Your task to perform on an android device: turn off data saver in the chrome app Image 0: 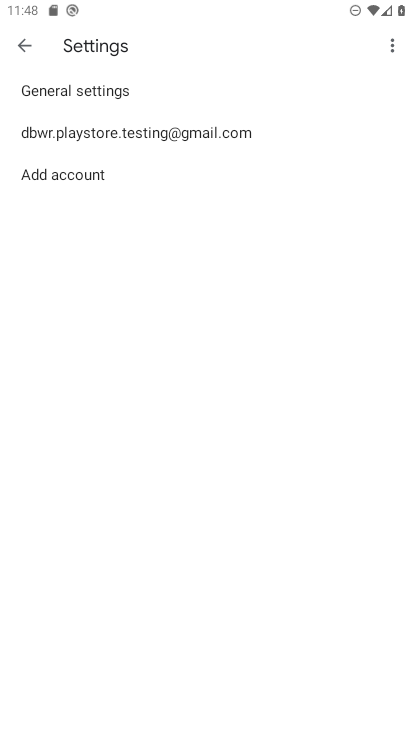
Step 0: press home button
Your task to perform on an android device: turn off data saver in the chrome app Image 1: 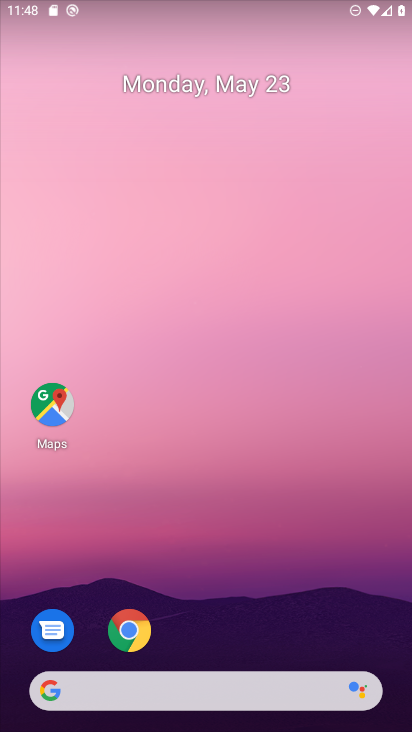
Step 1: click (132, 633)
Your task to perform on an android device: turn off data saver in the chrome app Image 2: 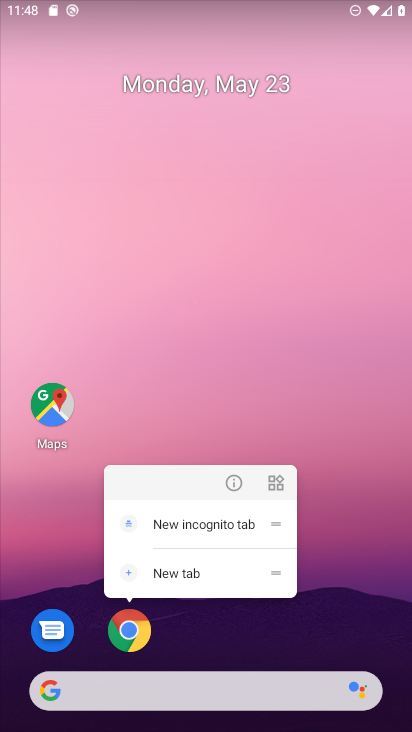
Step 2: click (233, 493)
Your task to perform on an android device: turn off data saver in the chrome app Image 3: 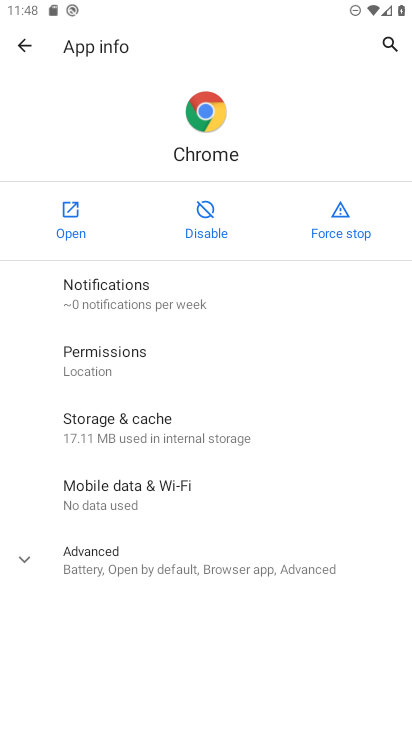
Step 3: click (62, 243)
Your task to perform on an android device: turn off data saver in the chrome app Image 4: 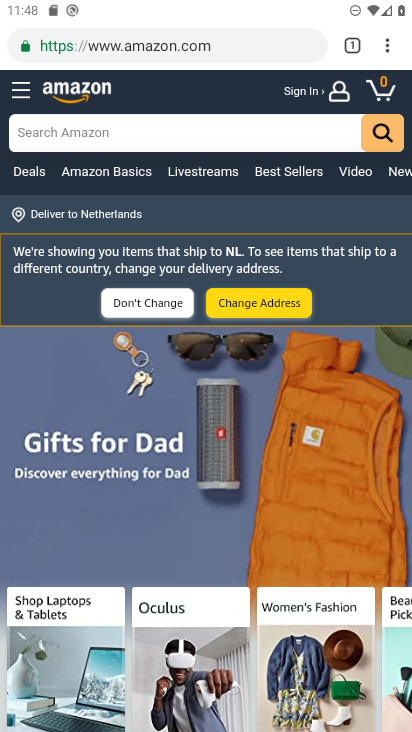
Step 4: click (390, 51)
Your task to perform on an android device: turn off data saver in the chrome app Image 5: 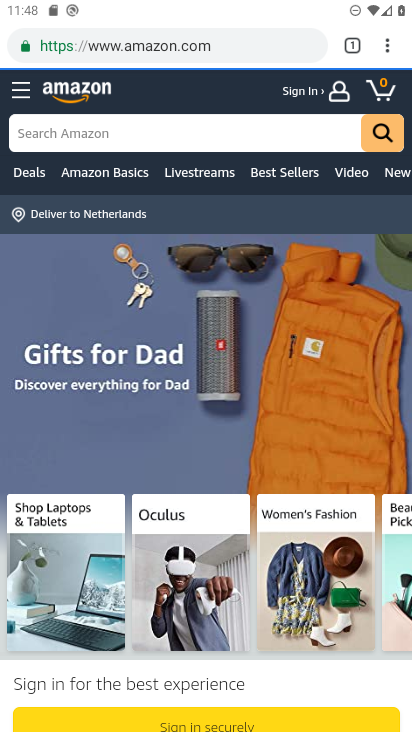
Step 5: click (383, 46)
Your task to perform on an android device: turn off data saver in the chrome app Image 6: 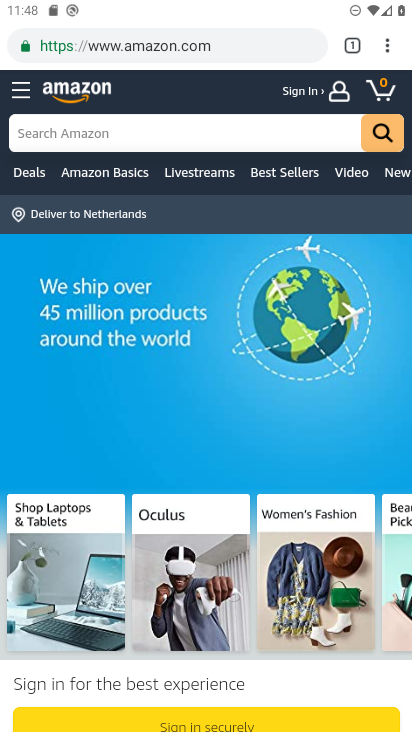
Step 6: click (389, 42)
Your task to perform on an android device: turn off data saver in the chrome app Image 7: 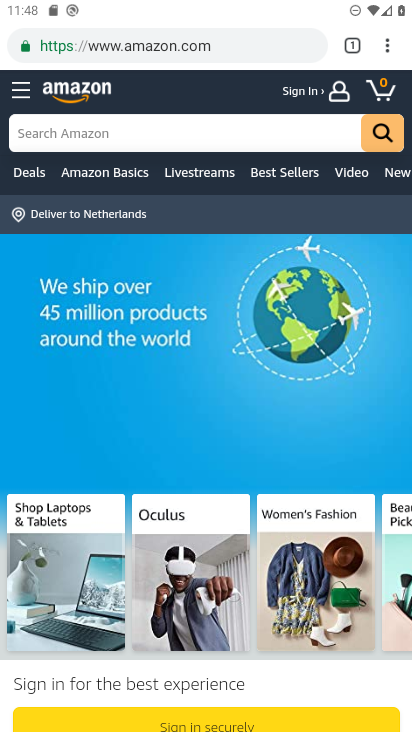
Step 7: click (387, 42)
Your task to perform on an android device: turn off data saver in the chrome app Image 8: 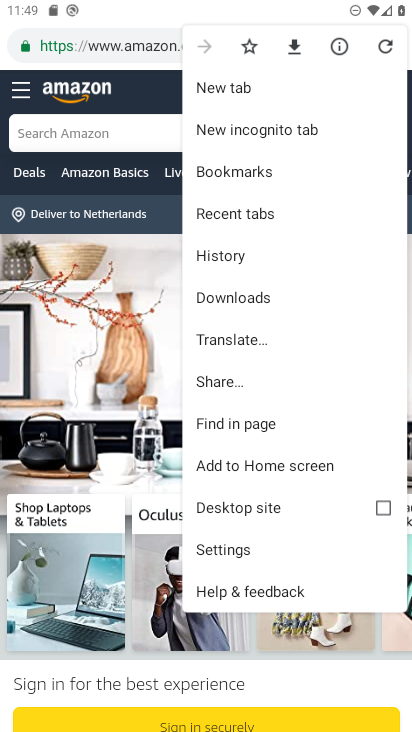
Step 8: click (230, 549)
Your task to perform on an android device: turn off data saver in the chrome app Image 9: 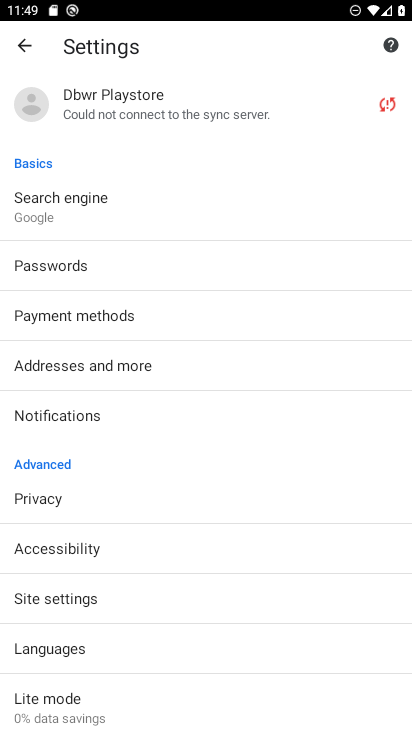
Step 9: click (92, 608)
Your task to perform on an android device: turn off data saver in the chrome app Image 10: 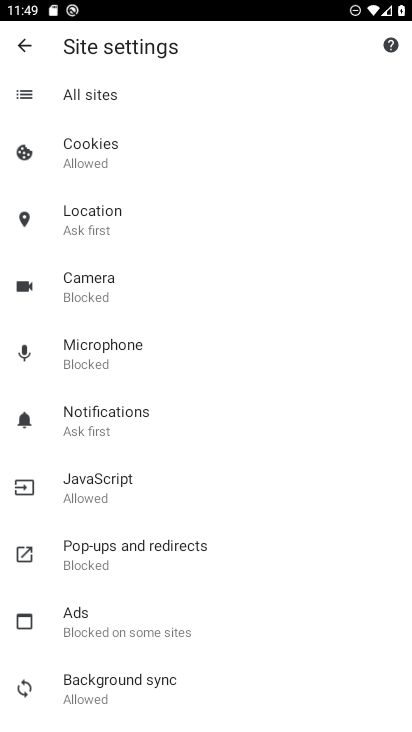
Step 10: click (13, 51)
Your task to perform on an android device: turn off data saver in the chrome app Image 11: 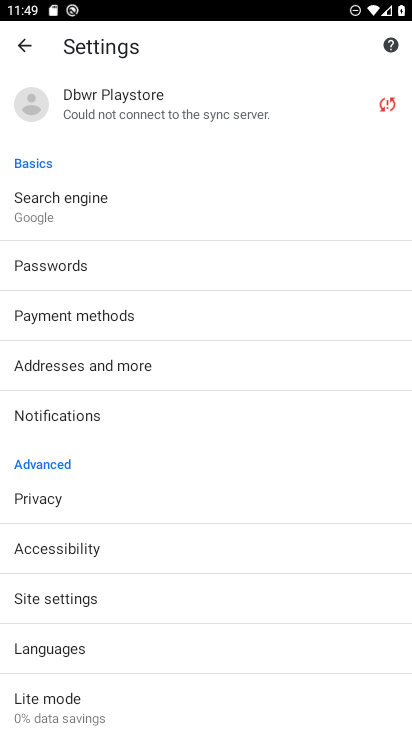
Step 11: click (83, 697)
Your task to perform on an android device: turn off data saver in the chrome app Image 12: 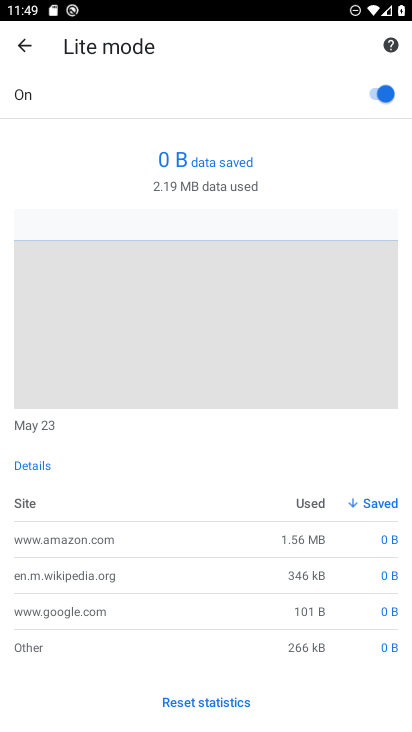
Step 12: click (376, 88)
Your task to perform on an android device: turn off data saver in the chrome app Image 13: 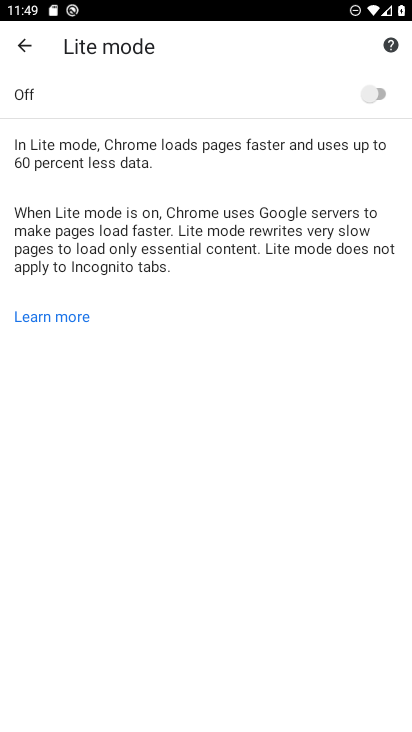
Step 13: task complete